Your task to perform on an android device: Go to notification settings Image 0: 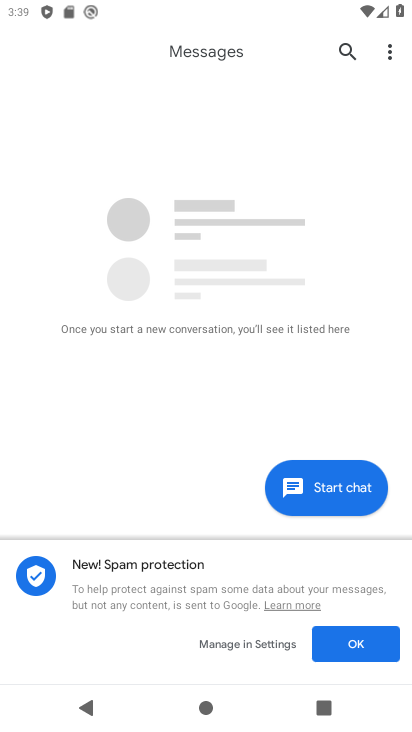
Step 0: press home button
Your task to perform on an android device: Go to notification settings Image 1: 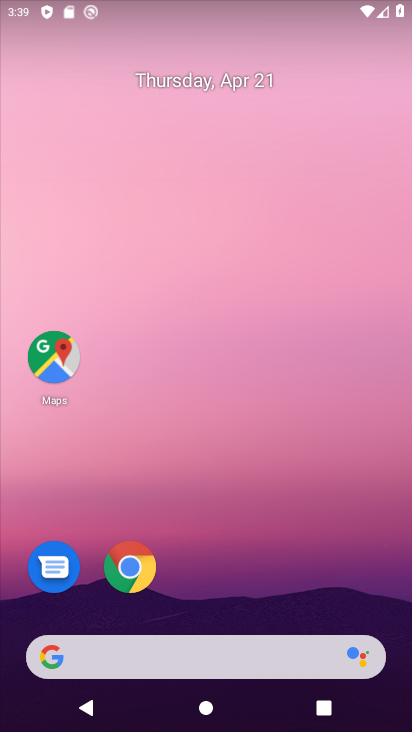
Step 1: drag from (278, 630) to (256, 72)
Your task to perform on an android device: Go to notification settings Image 2: 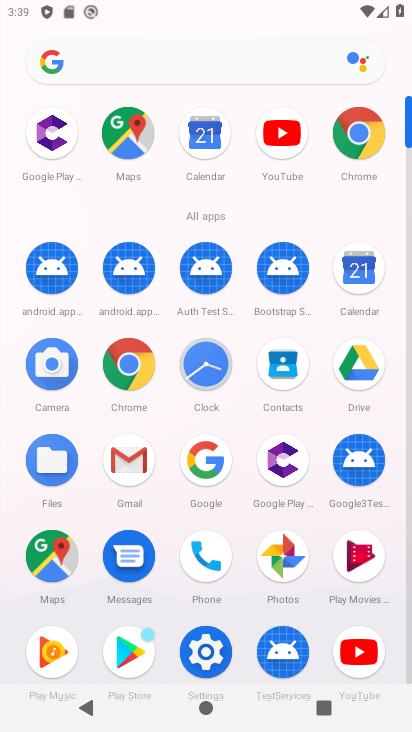
Step 2: click (215, 650)
Your task to perform on an android device: Go to notification settings Image 3: 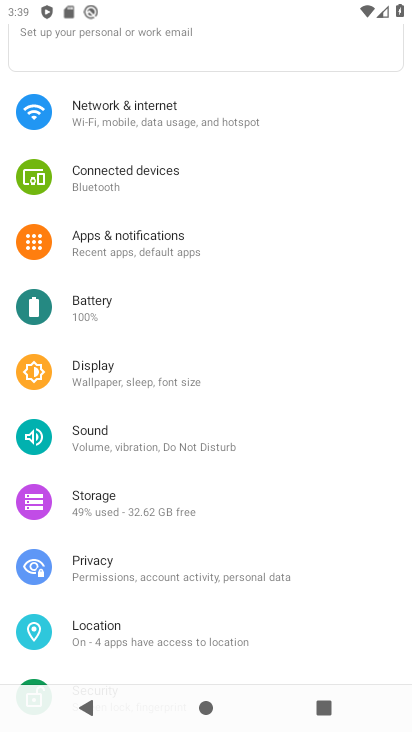
Step 3: click (196, 245)
Your task to perform on an android device: Go to notification settings Image 4: 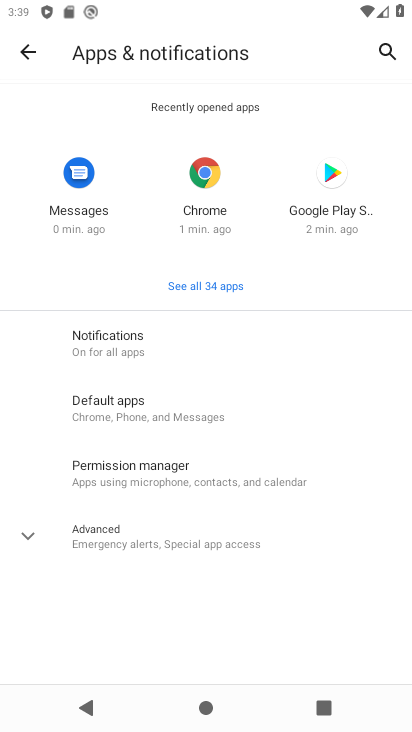
Step 4: click (182, 325)
Your task to perform on an android device: Go to notification settings Image 5: 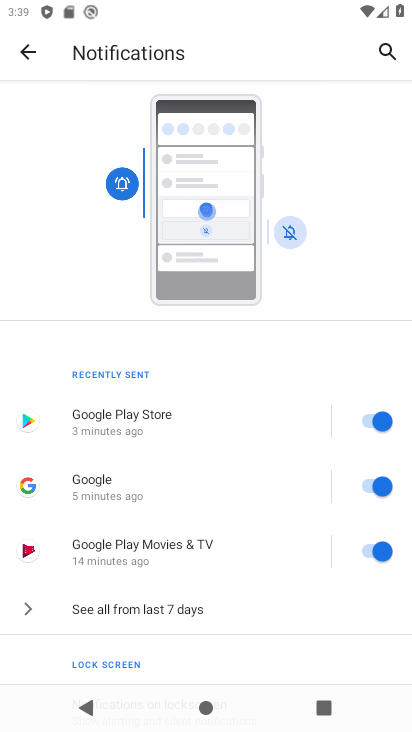
Step 5: task complete